Your task to perform on an android device: Open Amazon Image 0: 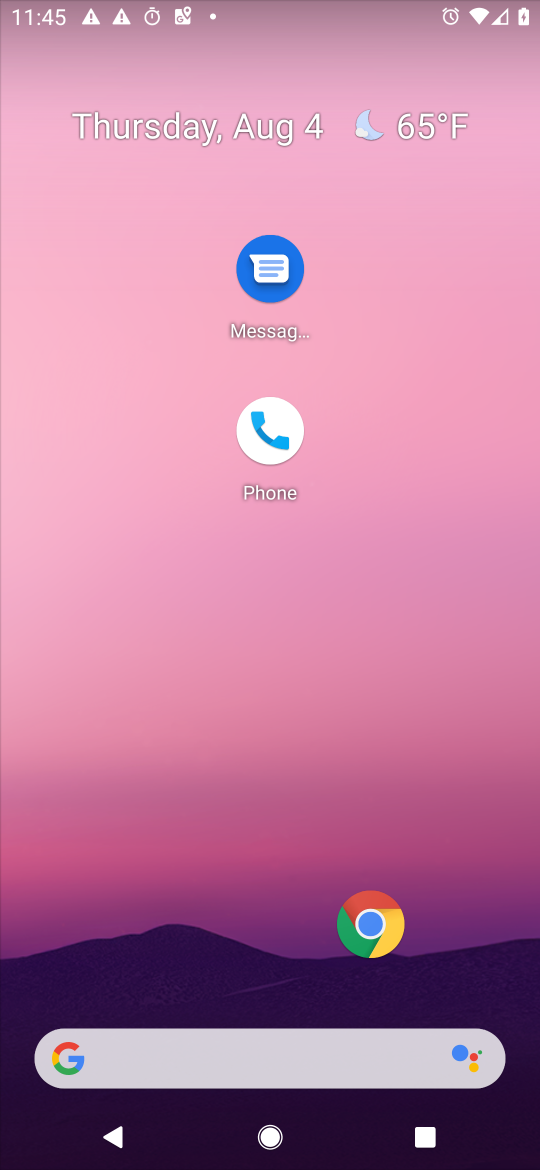
Step 0: drag from (327, 649) to (393, 333)
Your task to perform on an android device: Open Amazon Image 1: 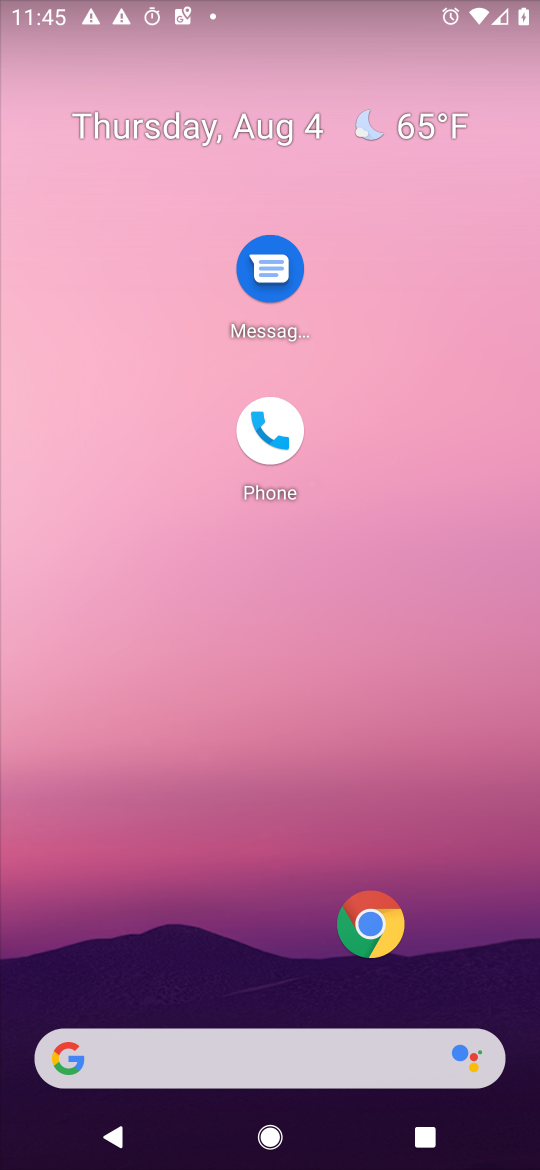
Step 1: drag from (281, 836) to (274, 360)
Your task to perform on an android device: Open Amazon Image 2: 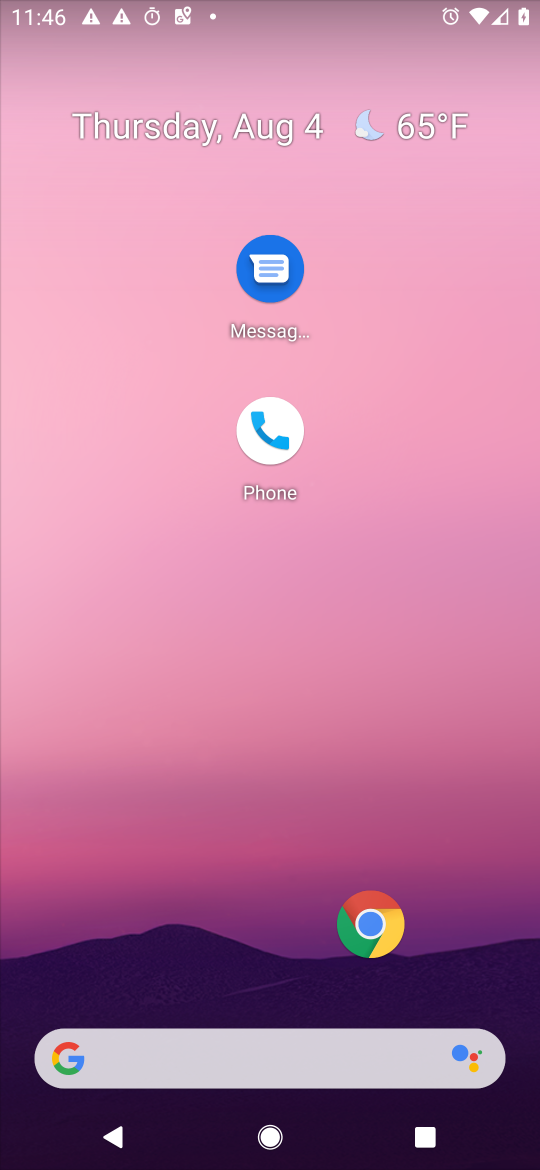
Step 2: drag from (266, 970) to (468, 115)
Your task to perform on an android device: Open Amazon Image 3: 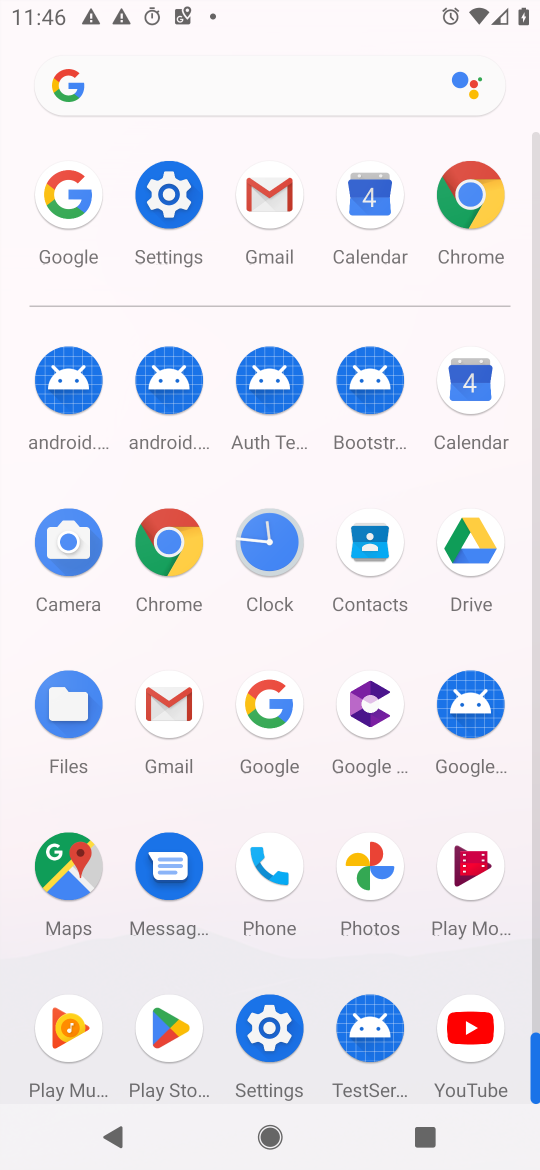
Step 3: click (467, 187)
Your task to perform on an android device: Open Amazon Image 4: 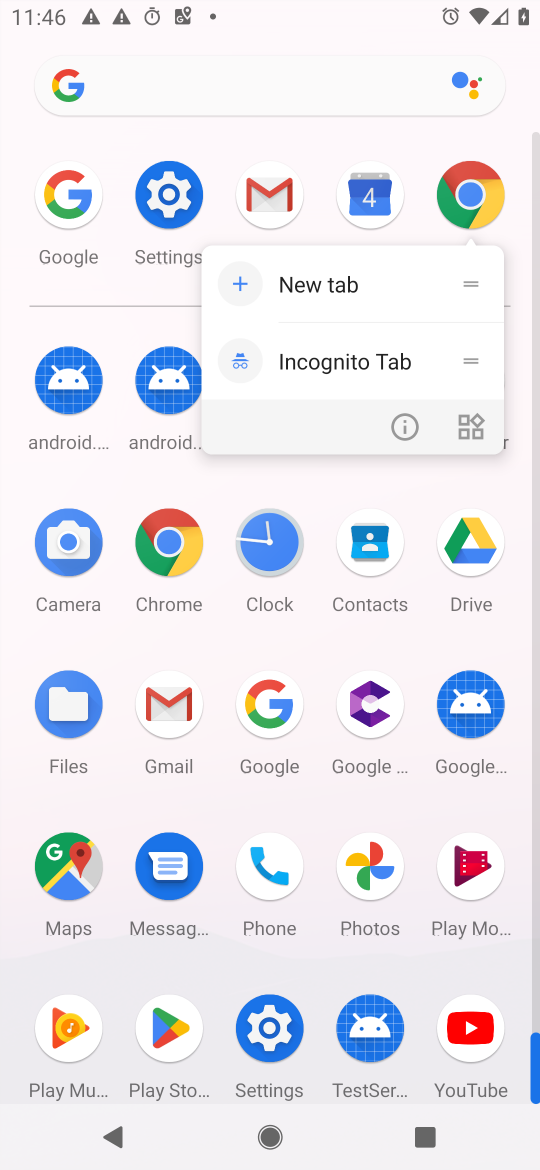
Step 4: click (410, 412)
Your task to perform on an android device: Open Amazon Image 5: 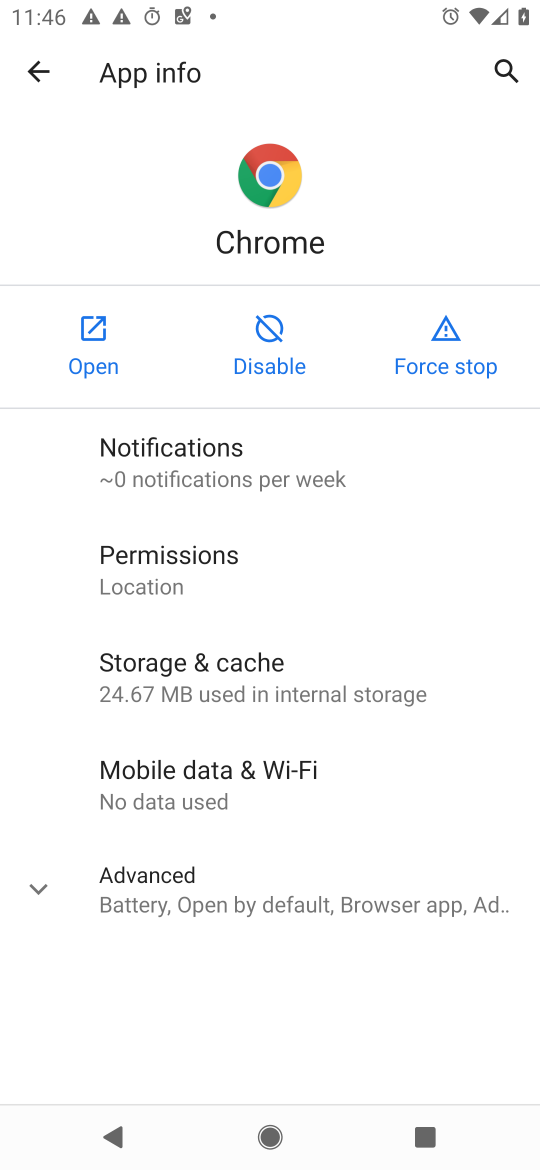
Step 5: click (103, 321)
Your task to perform on an android device: Open Amazon Image 6: 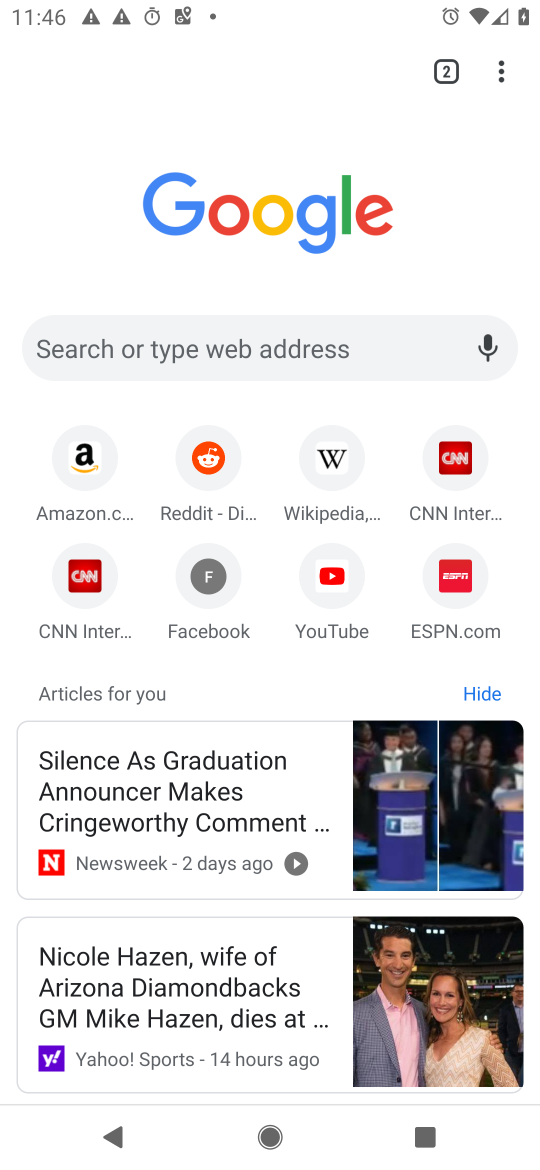
Step 6: click (89, 454)
Your task to perform on an android device: Open Amazon Image 7: 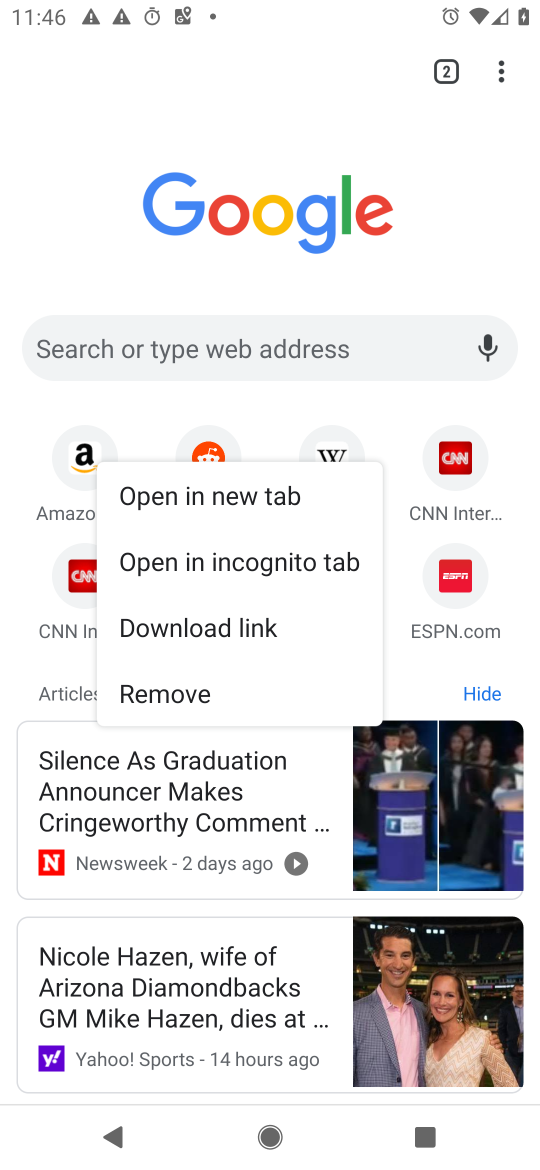
Step 7: click (68, 451)
Your task to perform on an android device: Open Amazon Image 8: 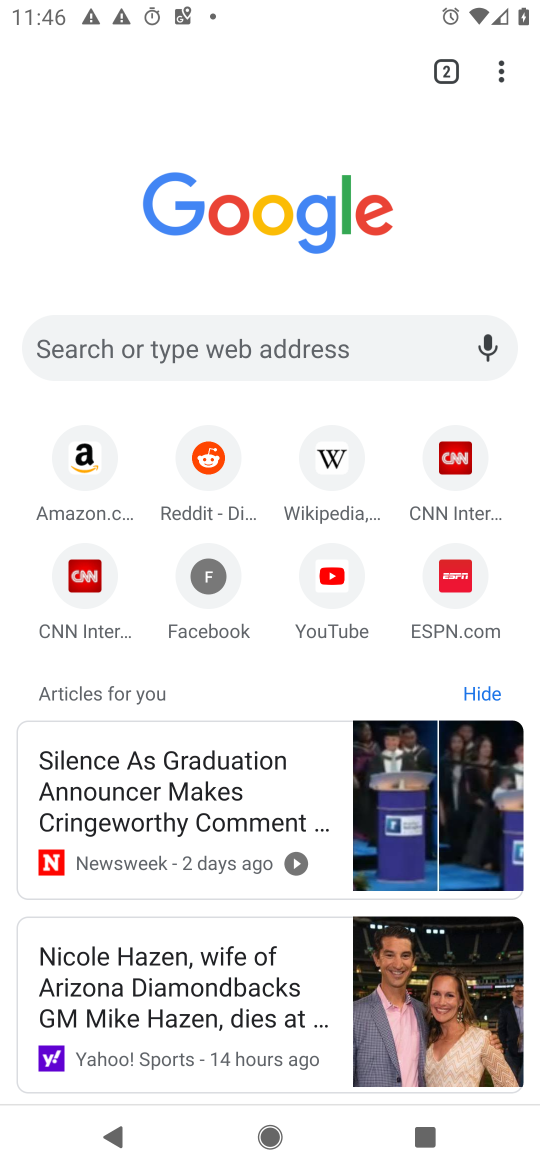
Step 8: click (84, 440)
Your task to perform on an android device: Open Amazon Image 9: 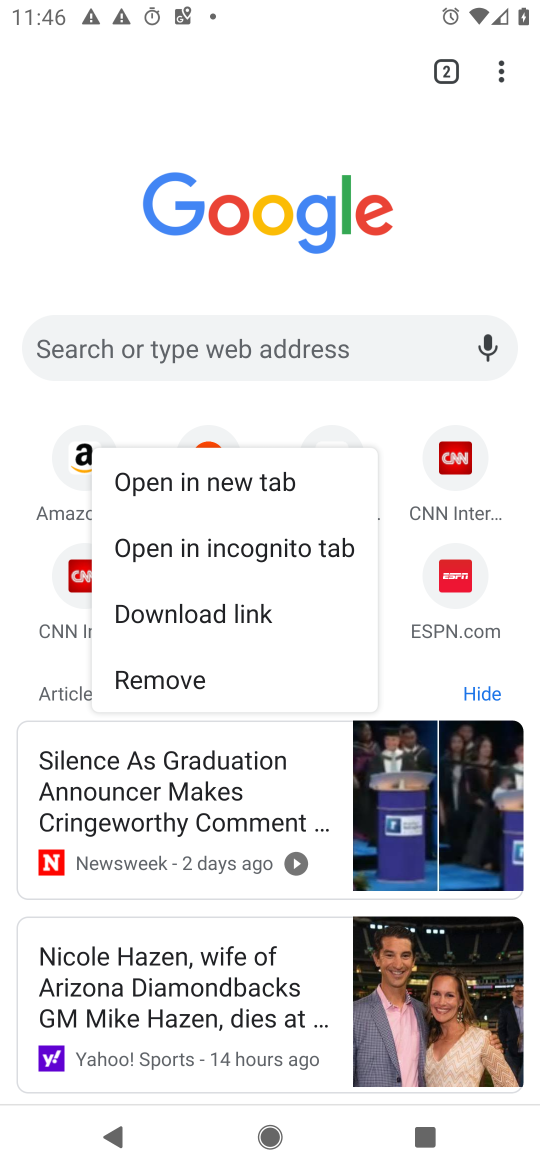
Step 9: click (81, 459)
Your task to perform on an android device: Open Amazon Image 10: 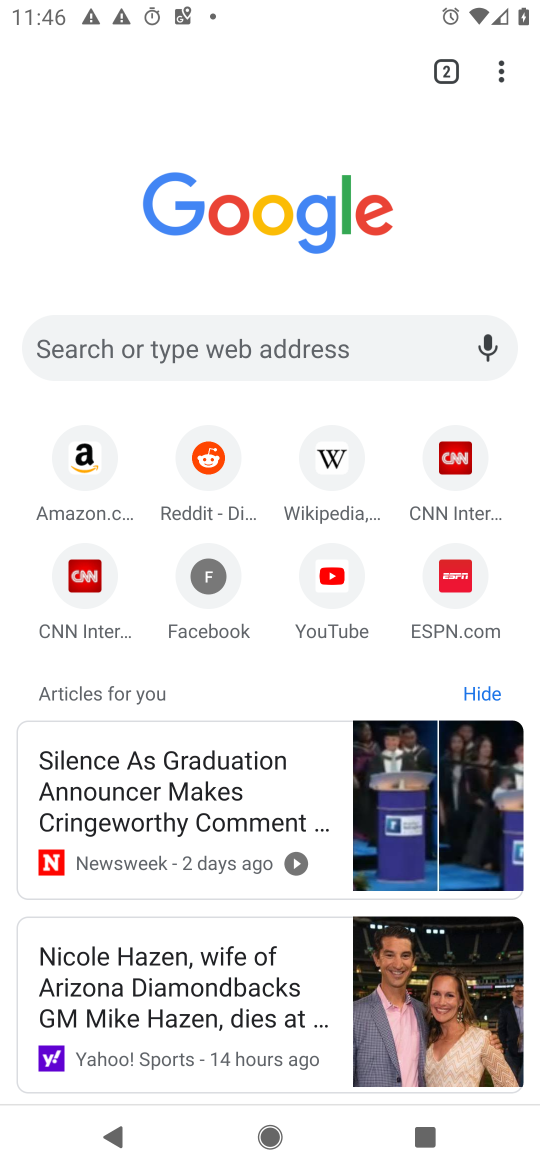
Step 10: click (81, 461)
Your task to perform on an android device: Open Amazon Image 11: 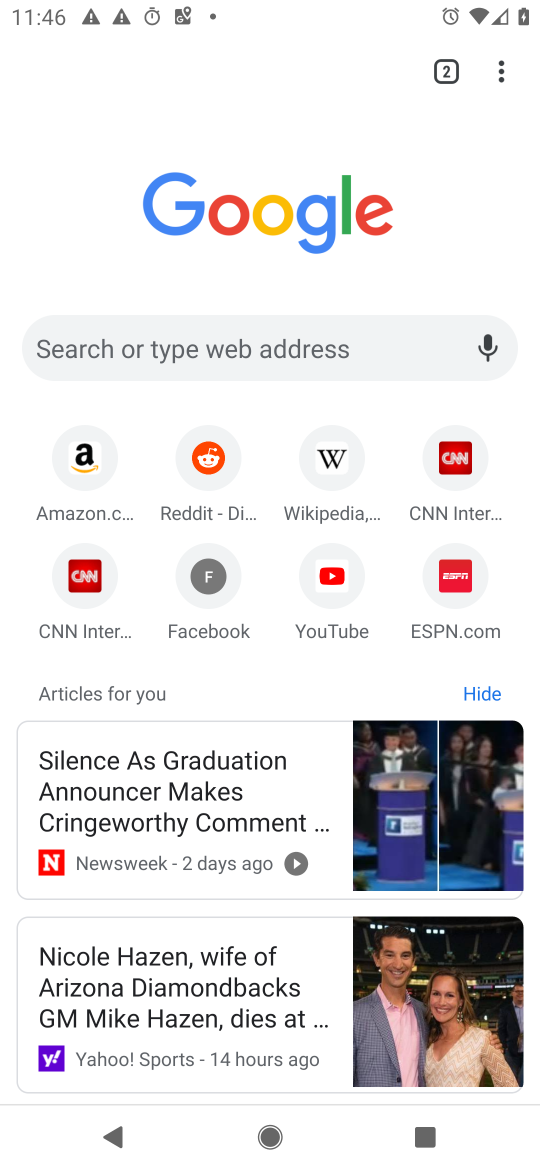
Step 11: click (81, 461)
Your task to perform on an android device: Open Amazon Image 12: 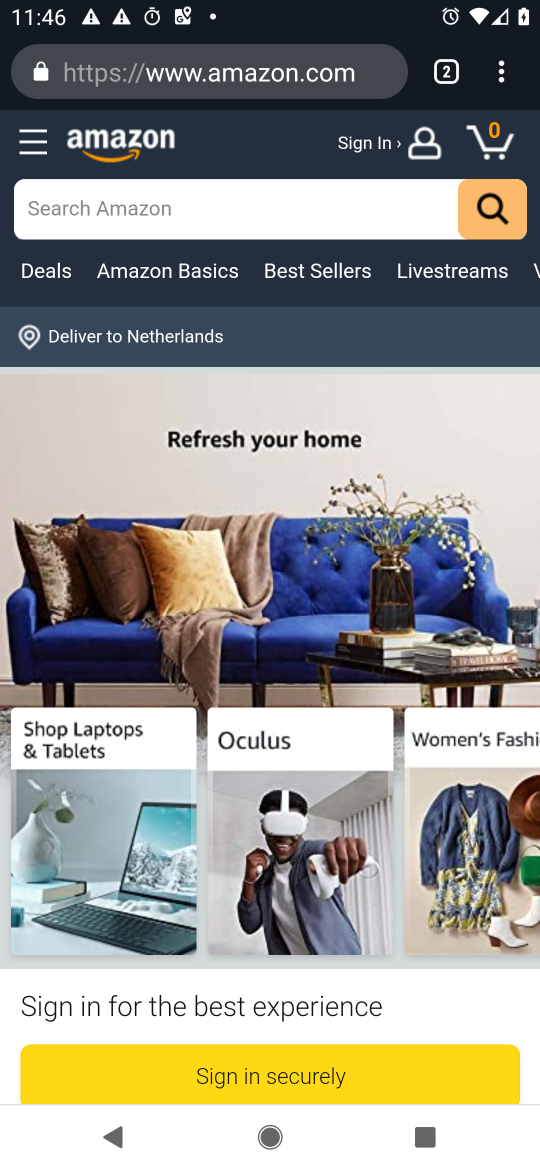
Step 12: drag from (275, 959) to (304, 544)
Your task to perform on an android device: Open Amazon Image 13: 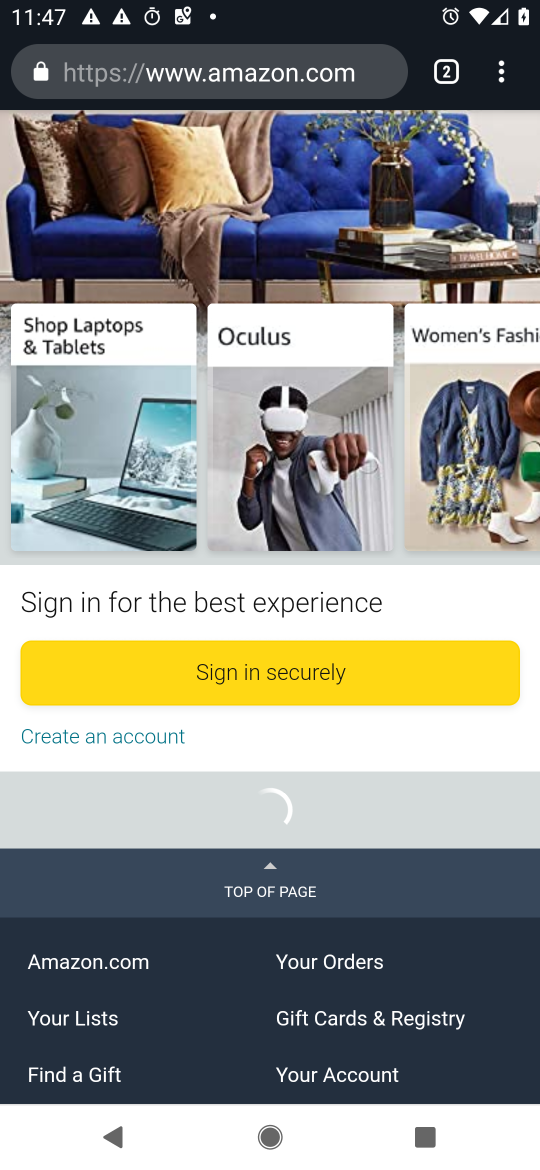
Step 13: drag from (496, 71) to (80, 66)
Your task to perform on an android device: Open Amazon Image 14: 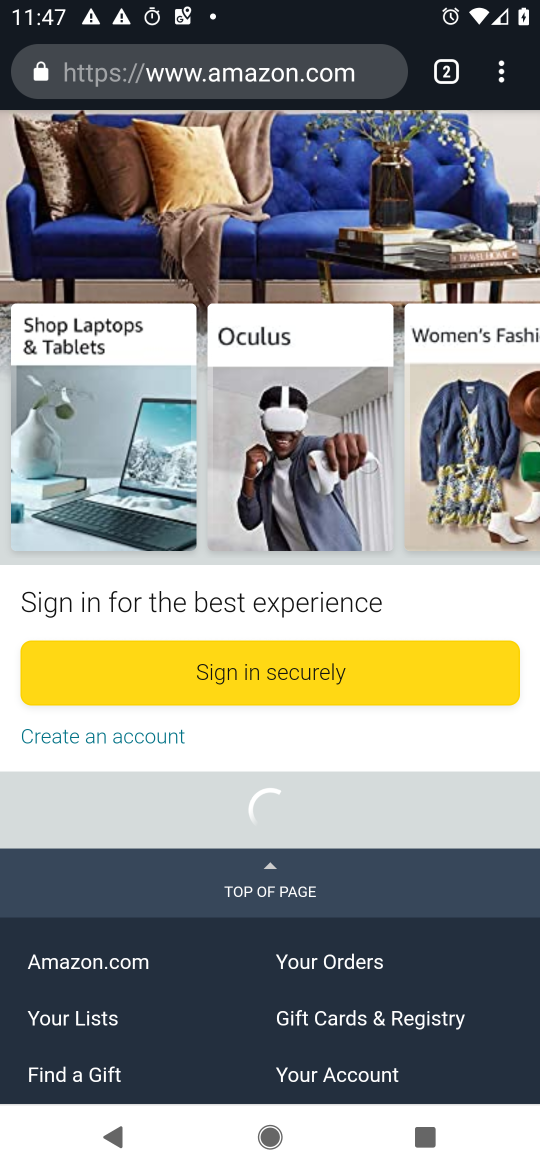
Step 14: click (119, 71)
Your task to perform on an android device: Open Amazon Image 15: 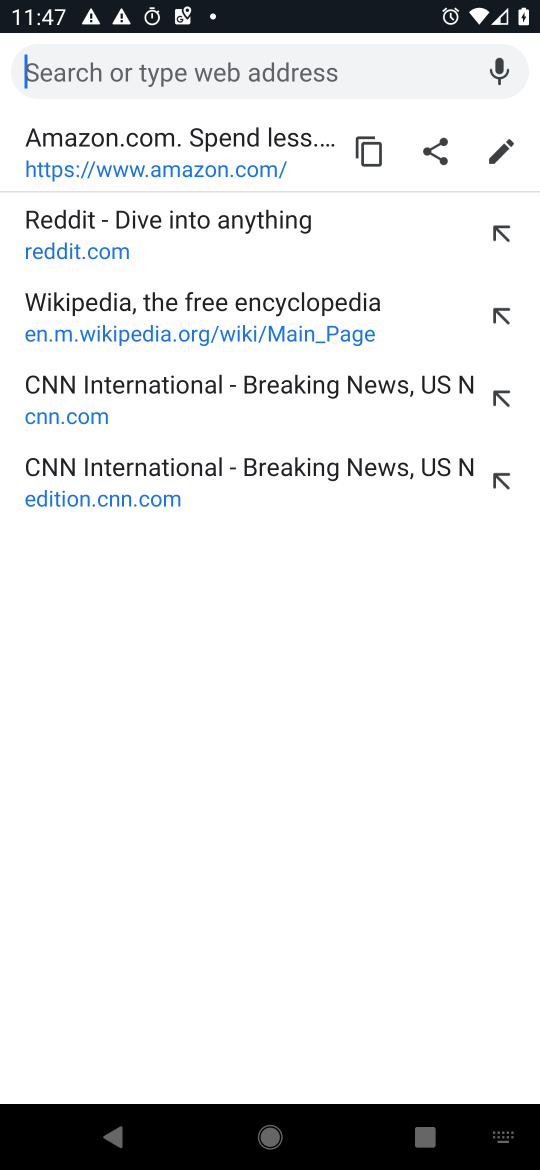
Step 15: type "amazon"
Your task to perform on an android device: Open Amazon Image 16: 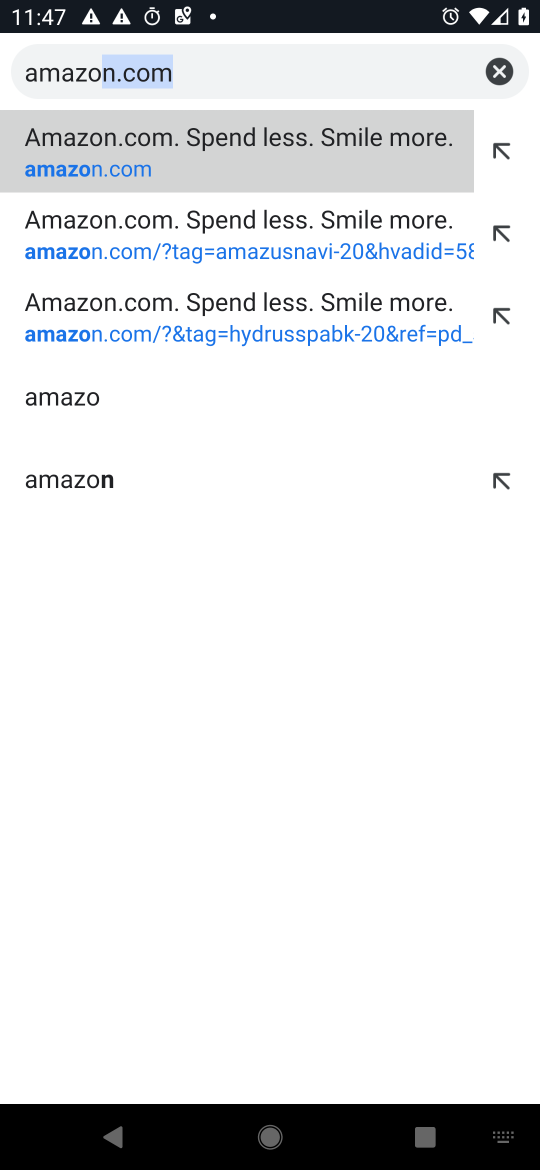
Step 16: click (121, 155)
Your task to perform on an android device: Open Amazon Image 17: 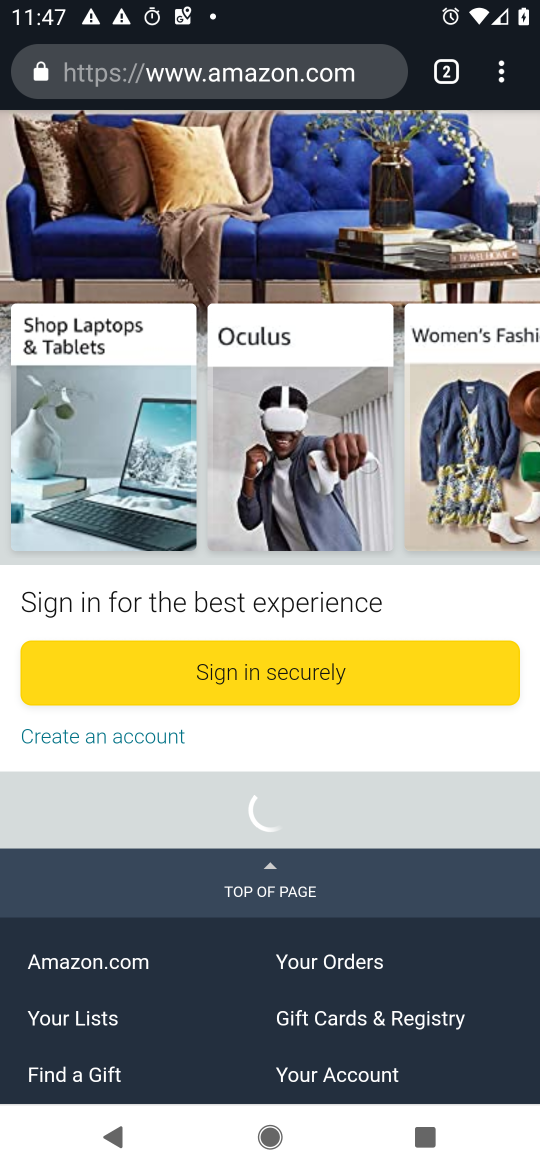
Step 17: task complete